Your task to perform on an android device: Turn off the flashlight Image 0: 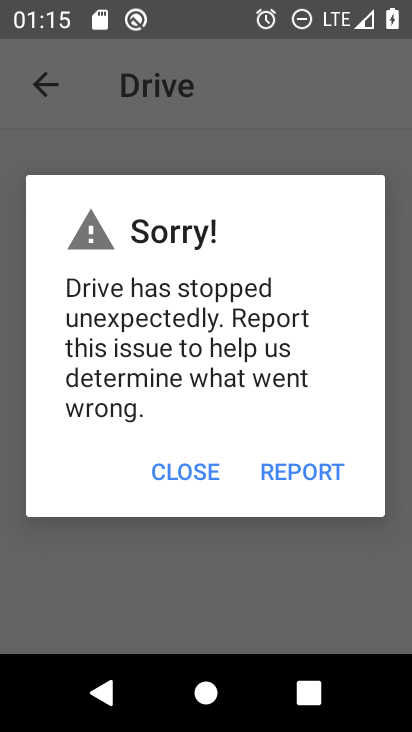
Step 0: press home button
Your task to perform on an android device: Turn off the flashlight Image 1: 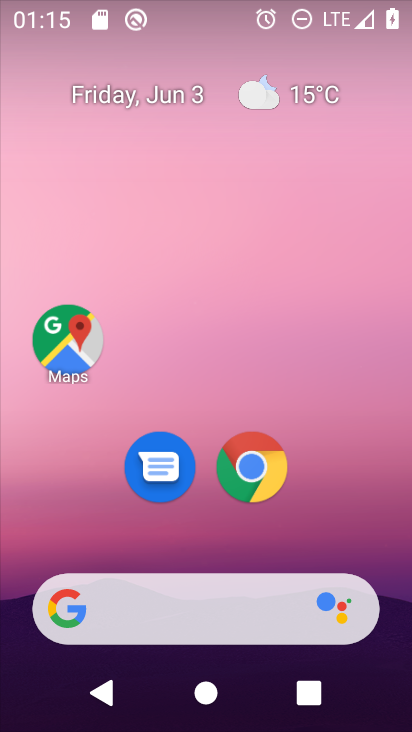
Step 1: drag from (398, 619) to (346, 31)
Your task to perform on an android device: Turn off the flashlight Image 2: 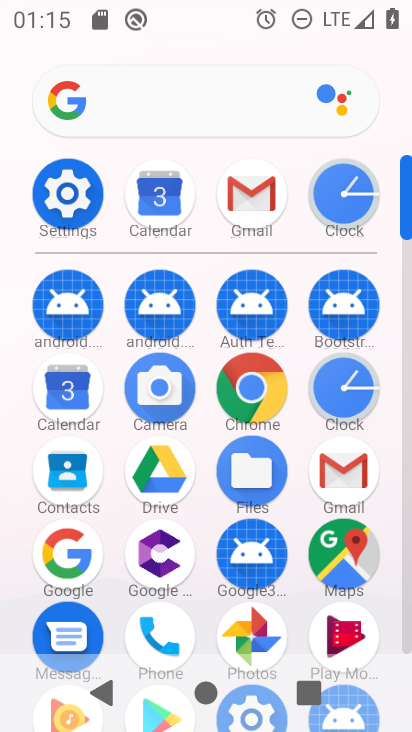
Step 2: click (409, 624)
Your task to perform on an android device: Turn off the flashlight Image 3: 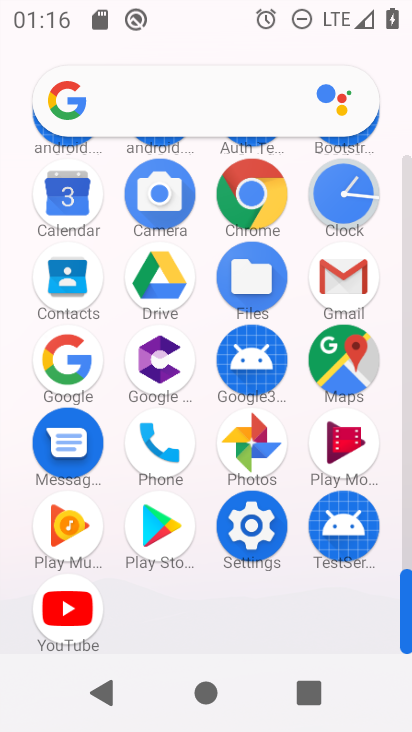
Step 3: press home button
Your task to perform on an android device: Turn off the flashlight Image 4: 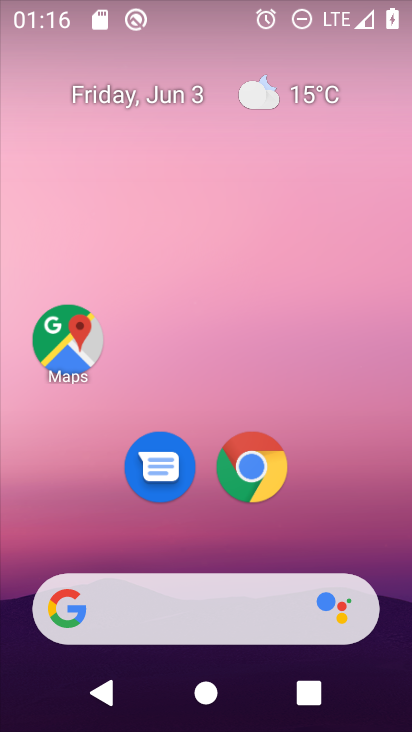
Step 4: drag from (226, 250) to (246, 450)
Your task to perform on an android device: Turn off the flashlight Image 5: 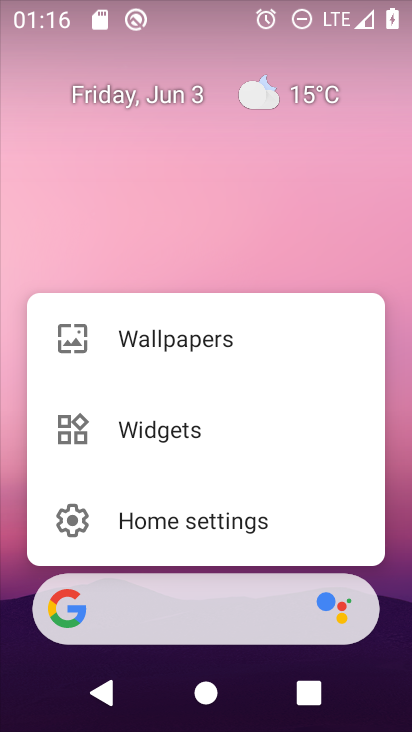
Step 5: drag from (235, 11) to (234, 421)
Your task to perform on an android device: Turn off the flashlight Image 6: 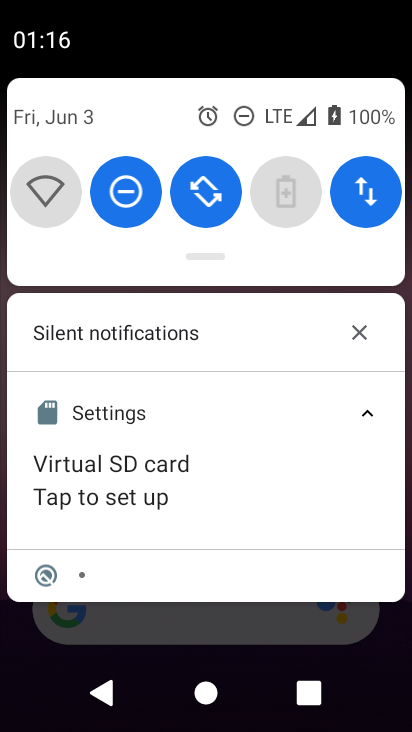
Step 6: drag from (202, 259) to (194, 505)
Your task to perform on an android device: Turn off the flashlight Image 7: 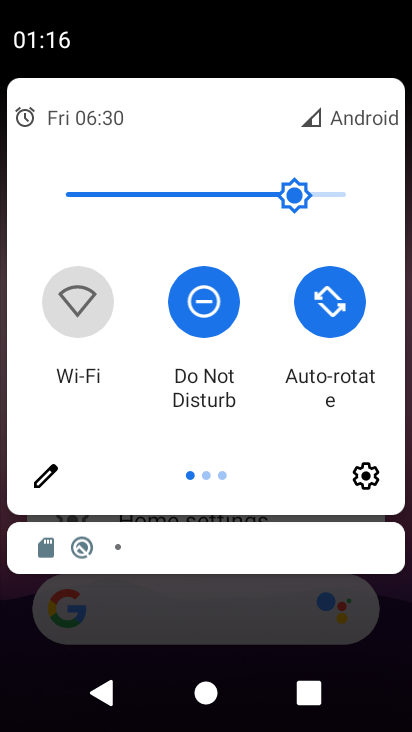
Step 7: click (42, 476)
Your task to perform on an android device: Turn off the flashlight Image 8: 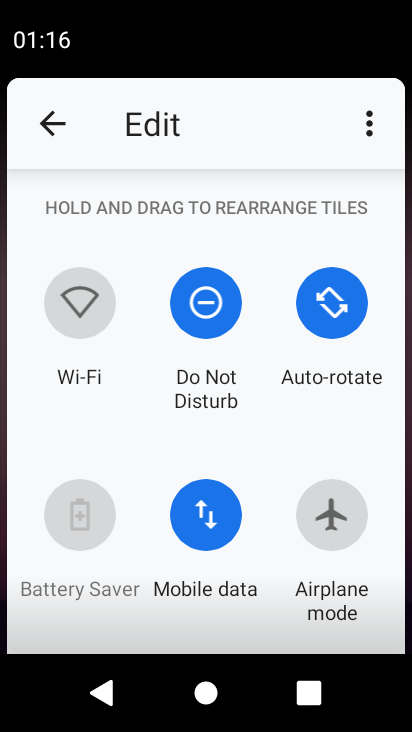
Step 8: task complete